Your task to perform on an android device: snooze an email in the gmail app Image 0: 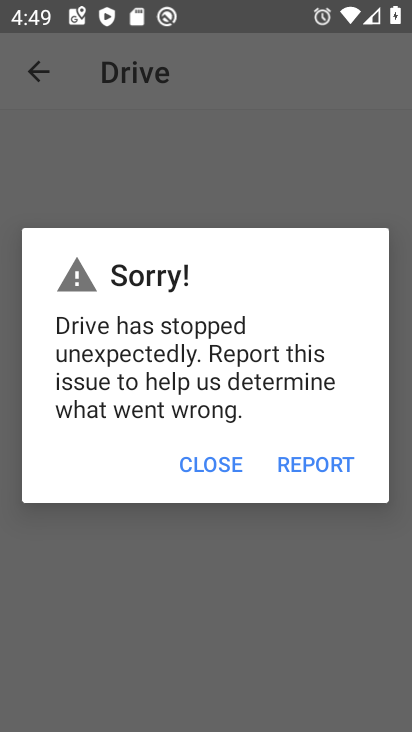
Step 0: press home button
Your task to perform on an android device: snooze an email in the gmail app Image 1: 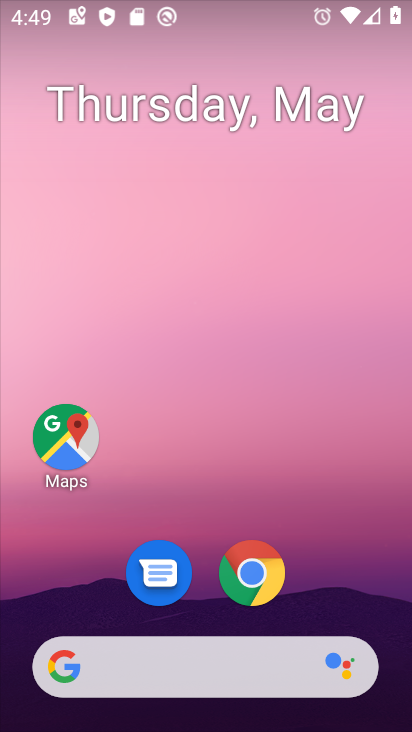
Step 1: drag from (306, 438) to (275, 0)
Your task to perform on an android device: snooze an email in the gmail app Image 2: 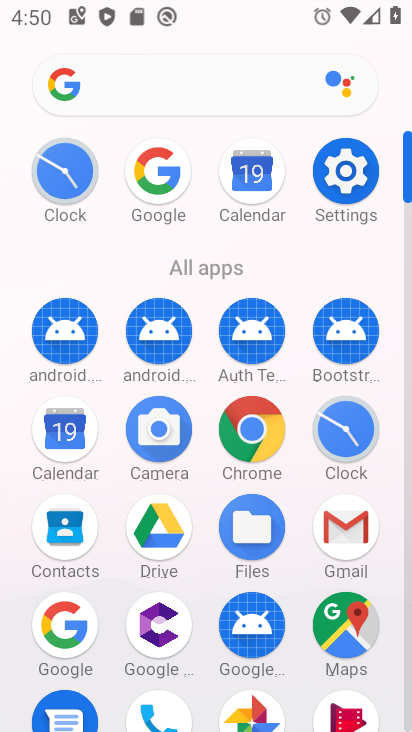
Step 2: click (335, 540)
Your task to perform on an android device: snooze an email in the gmail app Image 3: 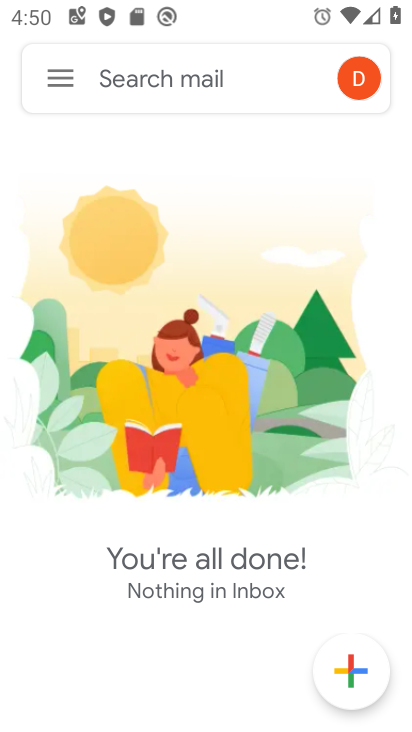
Step 3: click (52, 83)
Your task to perform on an android device: snooze an email in the gmail app Image 4: 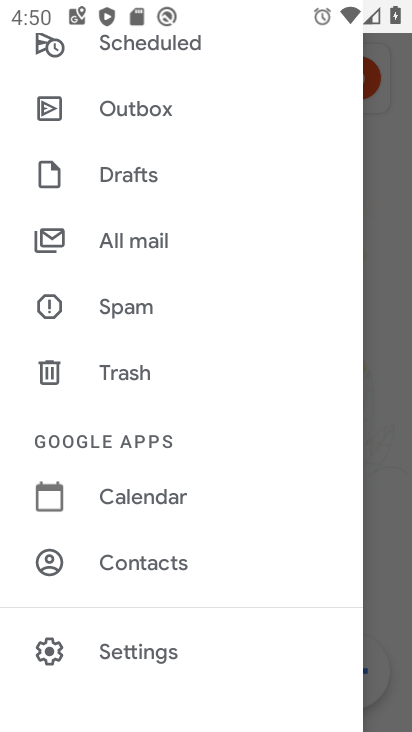
Step 4: click (139, 242)
Your task to perform on an android device: snooze an email in the gmail app Image 5: 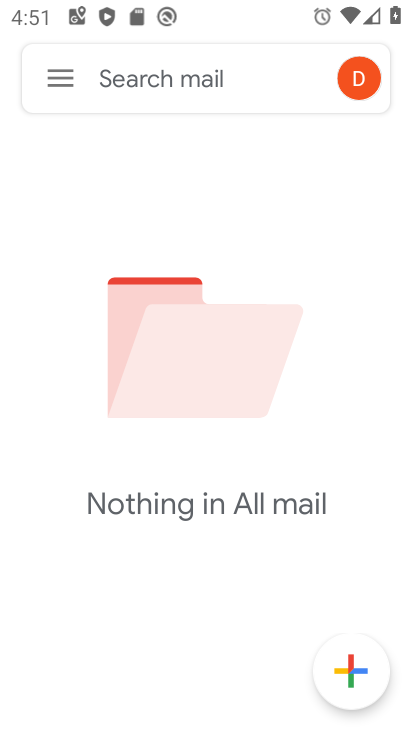
Step 5: task complete